Your task to perform on an android device: Open Wikipedia Image 0: 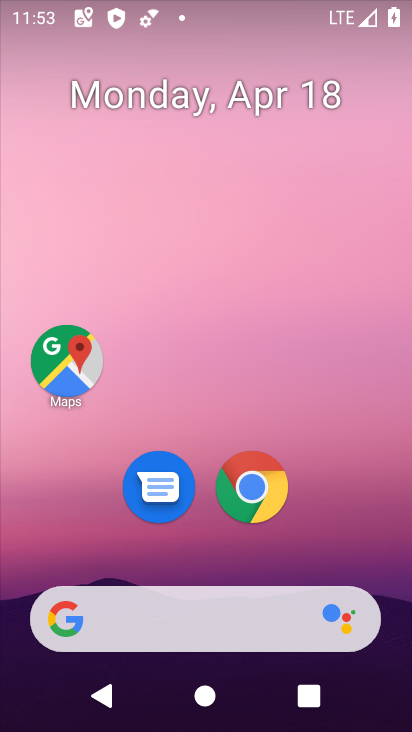
Step 0: click (255, 489)
Your task to perform on an android device: Open Wikipedia Image 1: 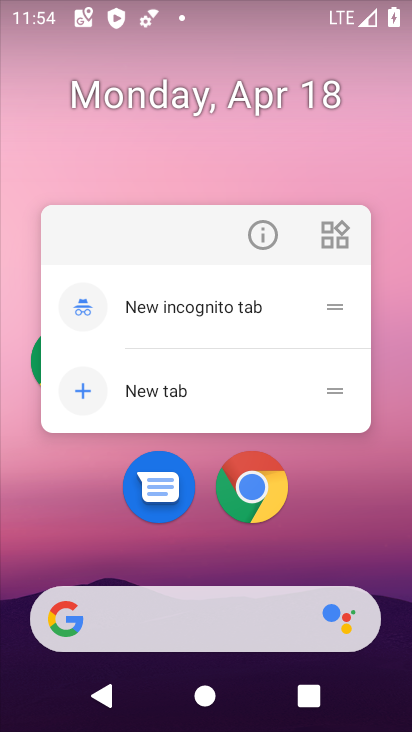
Step 1: click (260, 489)
Your task to perform on an android device: Open Wikipedia Image 2: 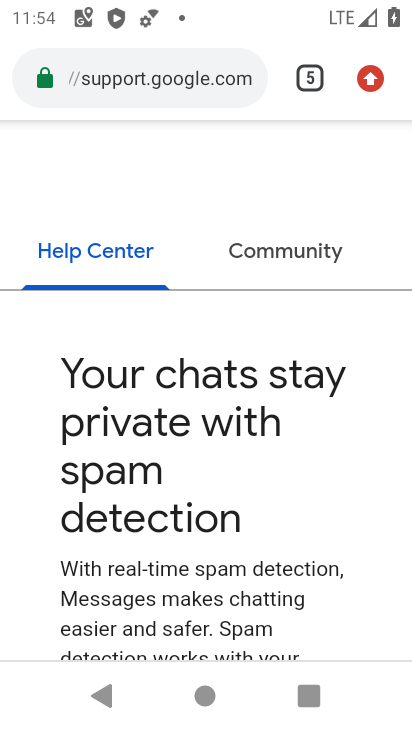
Step 2: click (370, 82)
Your task to perform on an android device: Open Wikipedia Image 3: 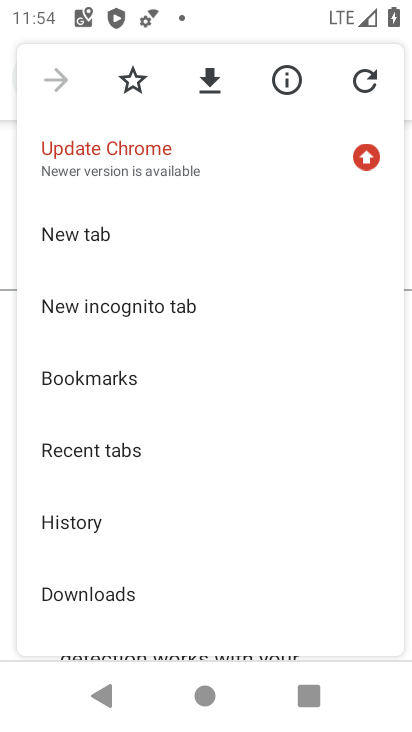
Step 3: click (80, 233)
Your task to perform on an android device: Open Wikipedia Image 4: 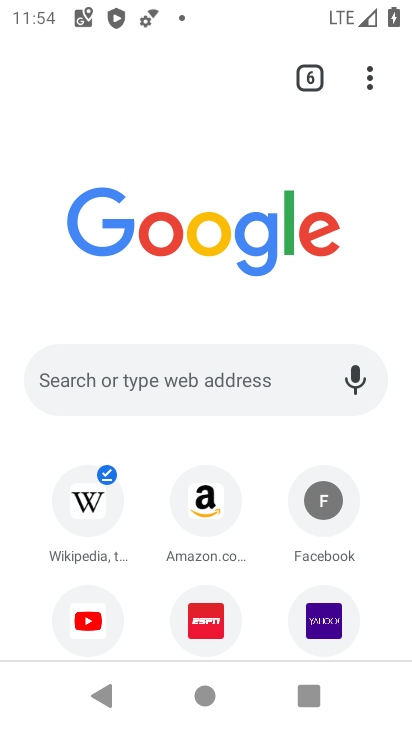
Step 4: click (88, 490)
Your task to perform on an android device: Open Wikipedia Image 5: 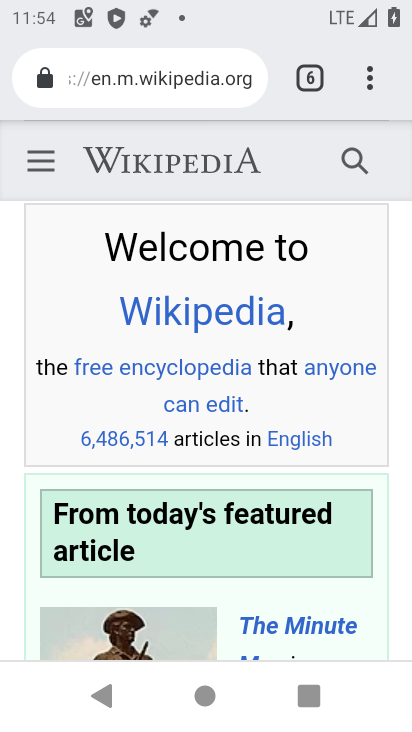
Step 5: task complete